Your task to perform on an android device: Do I have any events this weekend? Image 0: 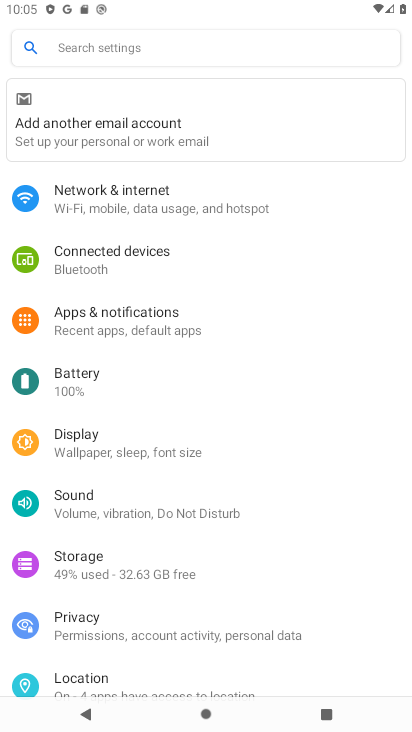
Step 0: press home button
Your task to perform on an android device: Do I have any events this weekend? Image 1: 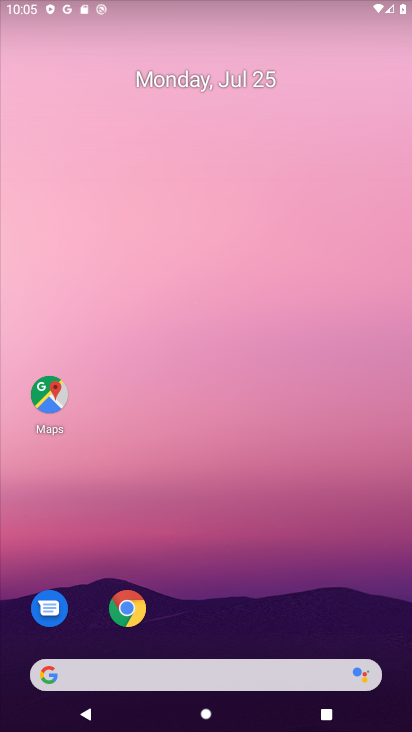
Step 1: drag from (173, 581) to (200, 189)
Your task to perform on an android device: Do I have any events this weekend? Image 2: 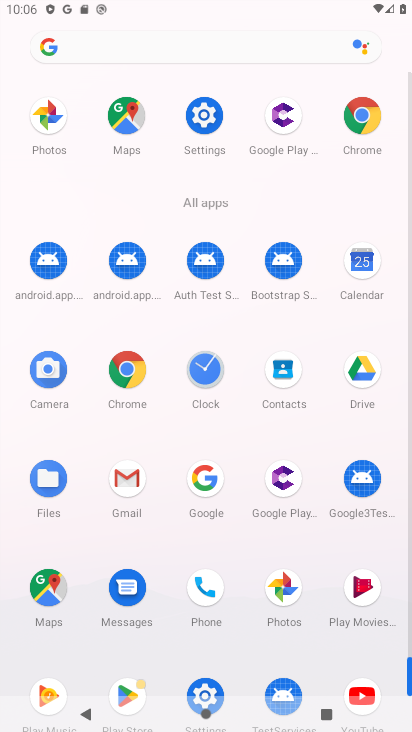
Step 2: click (353, 273)
Your task to perform on an android device: Do I have any events this weekend? Image 3: 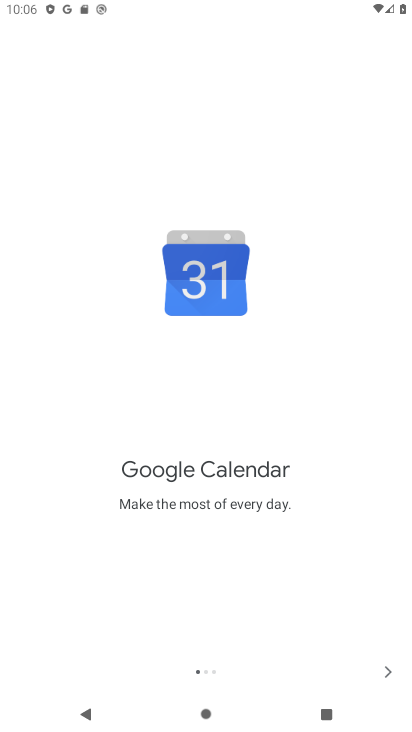
Step 3: click (375, 672)
Your task to perform on an android device: Do I have any events this weekend? Image 4: 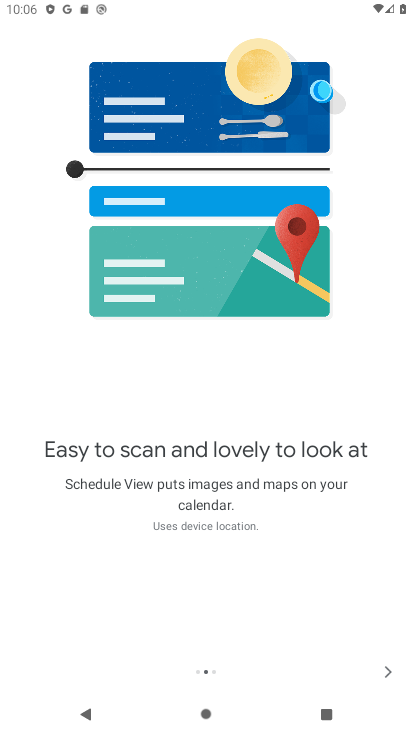
Step 4: click (385, 677)
Your task to perform on an android device: Do I have any events this weekend? Image 5: 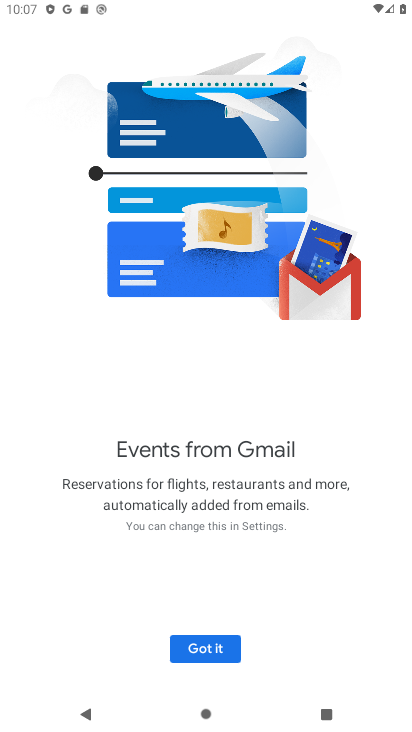
Step 5: click (192, 643)
Your task to perform on an android device: Do I have any events this weekend? Image 6: 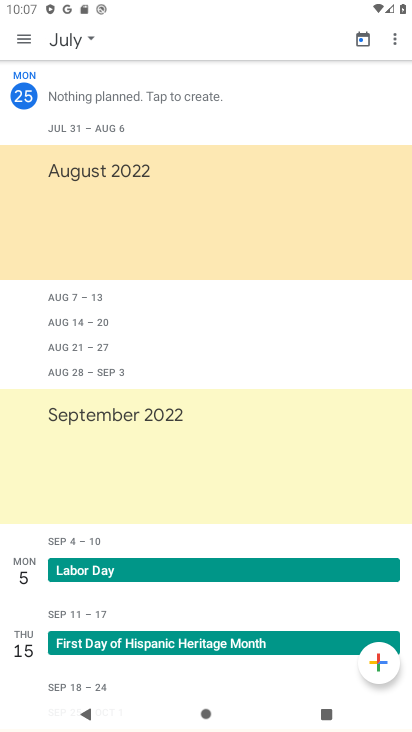
Step 6: click (24, 35)
Your task to perform on an android device: Do I have any events this weekend? Image 7: 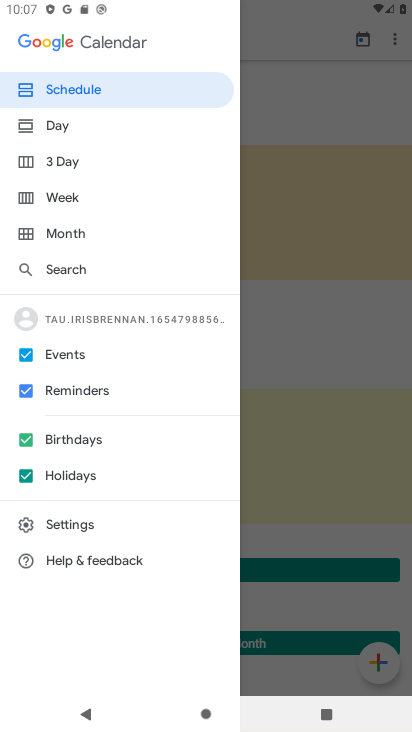
Step 7: click (91, 204)
Your task to perform on an android device: Do I have any events this weekend? Image 8: 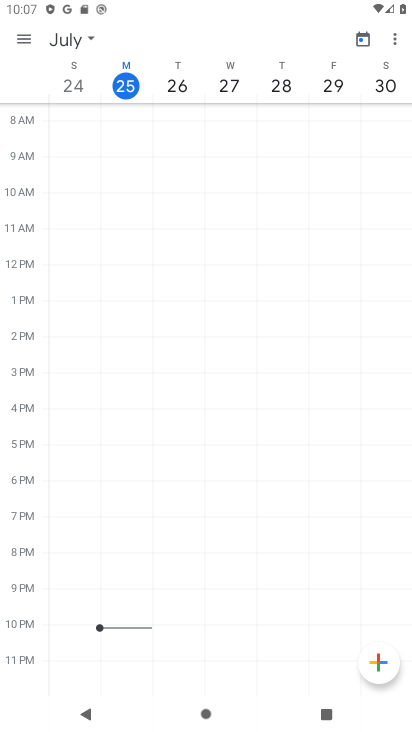
Step 8: task complete